Your task to perform on an android device: Open location settings Image 0: 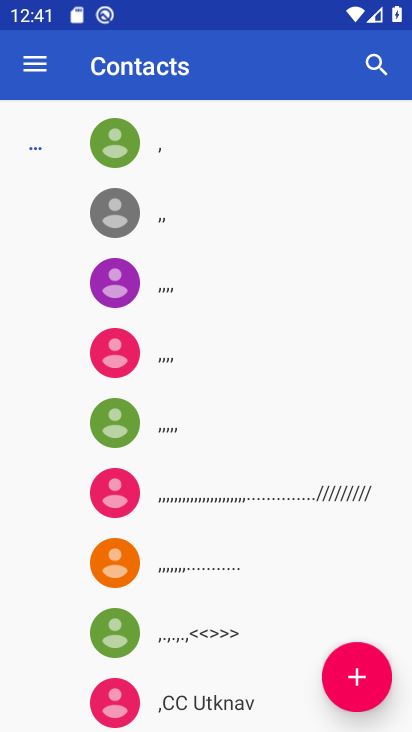
Step 0: press home button
Your task to perform on an android device: Open location settings Image 1: 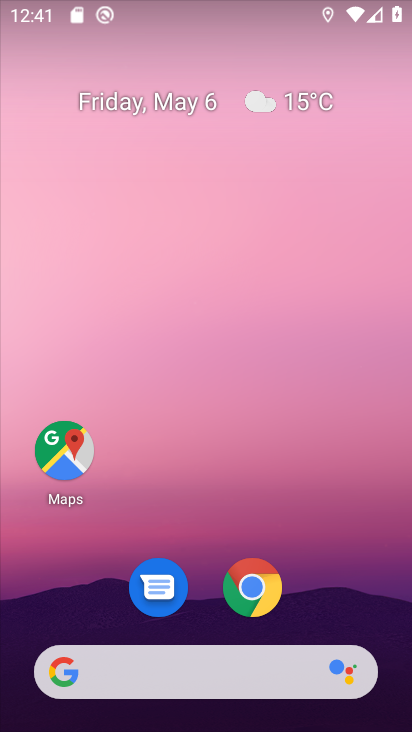
Step 1: drag from (333, 590) to (199, 1)
Your task to perform on an android device: Open location settings Image 2: 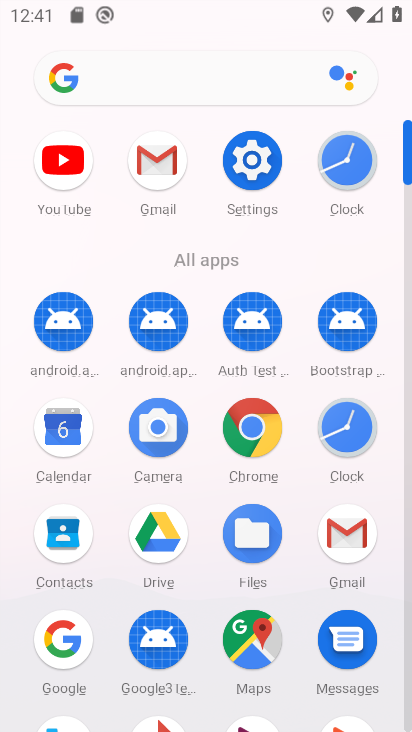
Step 2: click (249, 159)
Your task to perform on an android device: Open location settings Image 3: 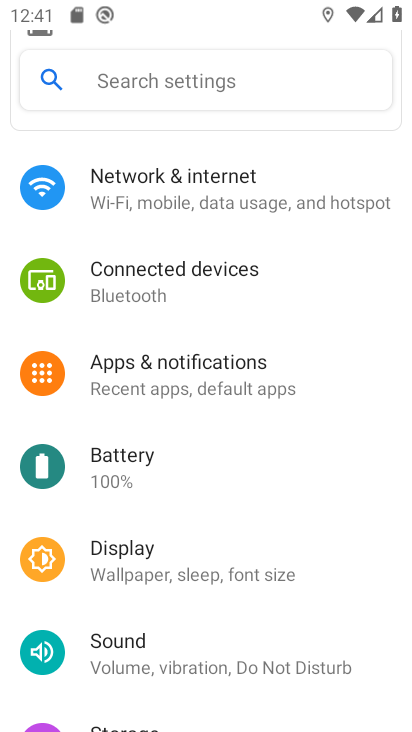
Step 3: drag from (201, 654) to (178, 161)
Your task to perform on an android device: Open location settings Image 4: 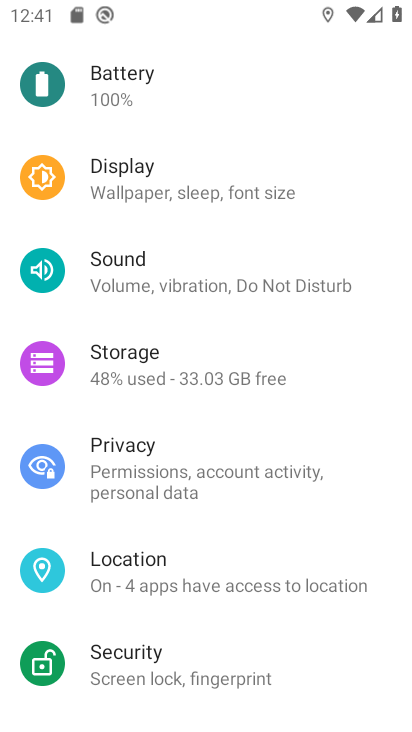
Step 4: click (176, 562)
Your task to perform on an android device: Open location settings Image 5: 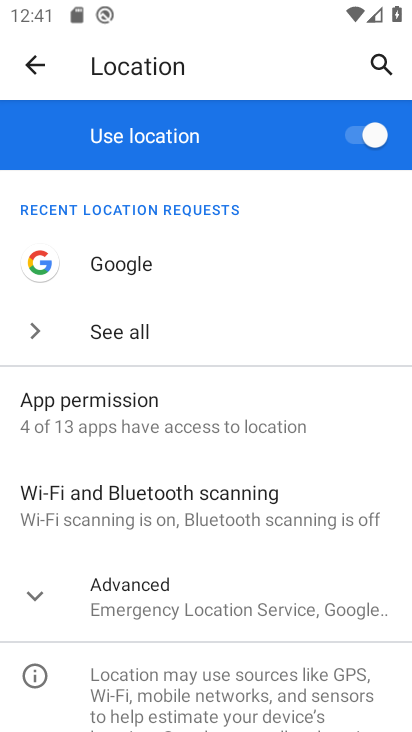
Step 5: task complete